Your task to perform on an android device: change your default location settings in chrome Image 0: 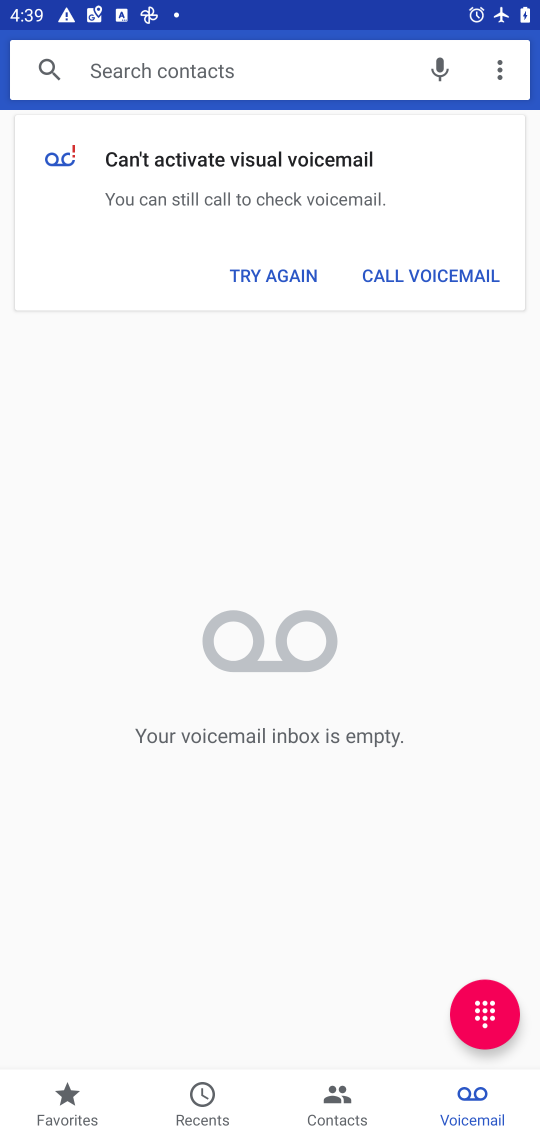
Step 0: press home button
Your task to perform on an android device: change your default location settings in chrome Image 1: 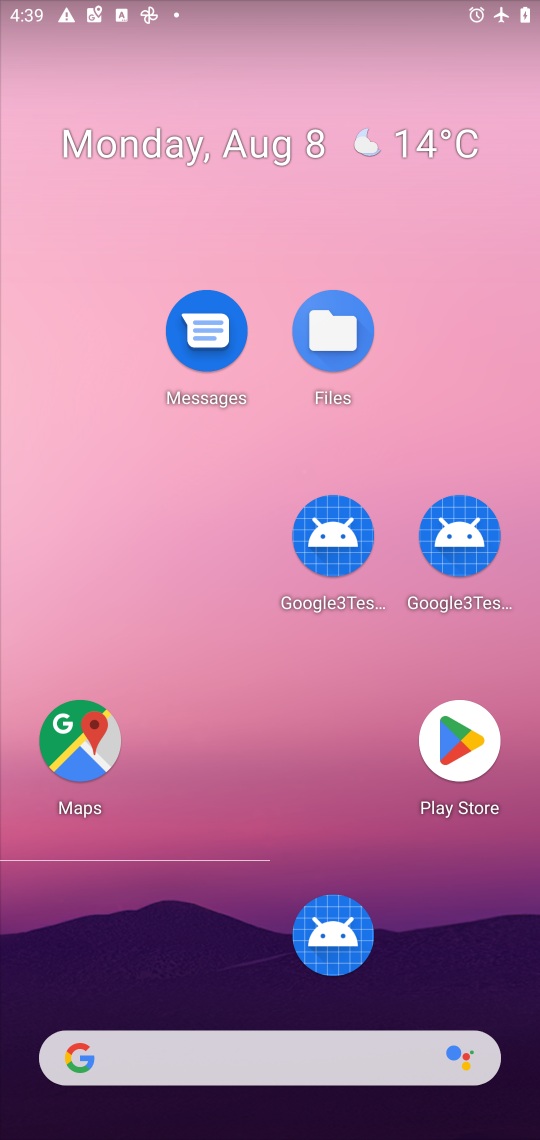
Step 1: drag from (351, 1047) to (289, 284)
Your task to perform on an android device: change your default location settings in chrome Image 2: 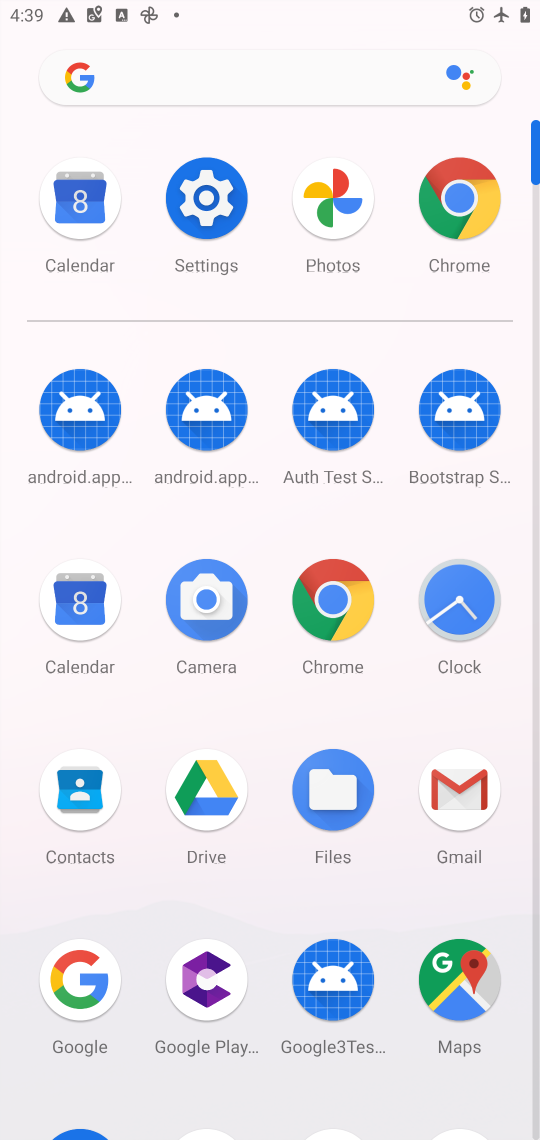
Step 2: click (313, 593)
Your task to perform on an android device: change your default location settings in chrome Image 3: 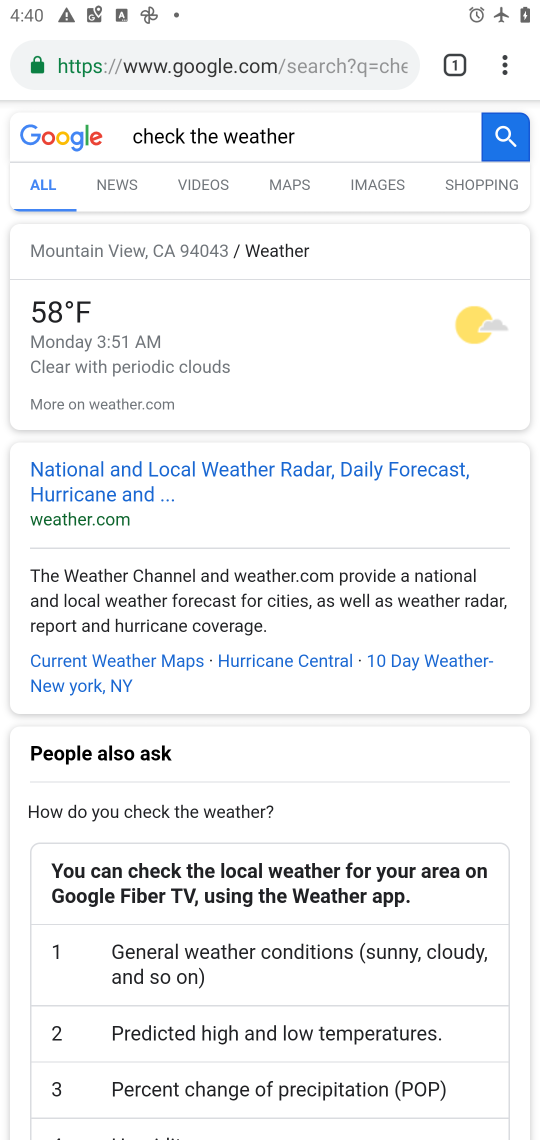
Step 3: click (502, 53)
Your task to perform on an android device: change your default location settings in chrome Image 4: 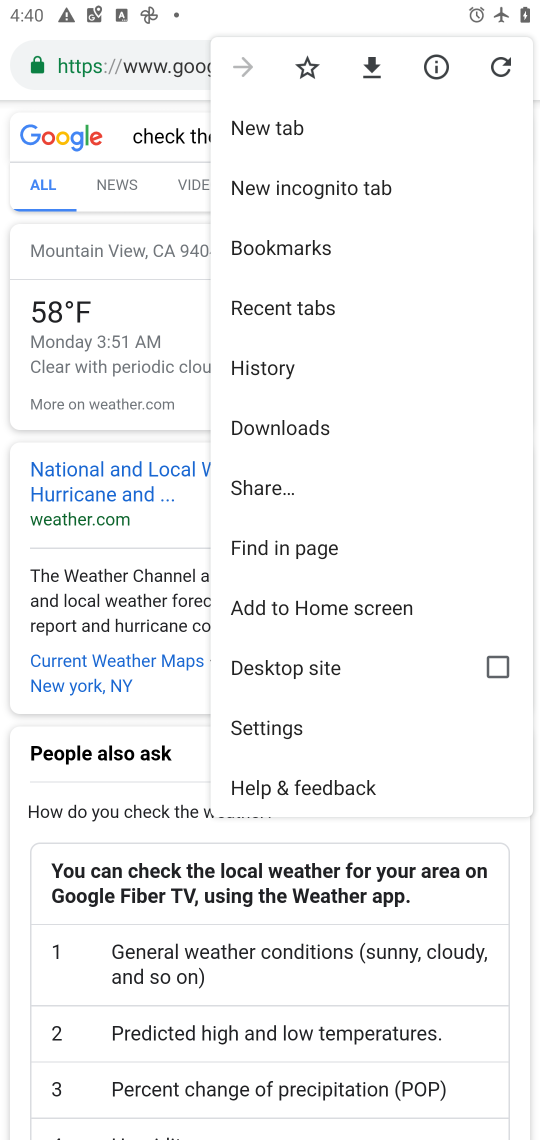
Step 4: click (317, 731)
Your task to perform on an android device: change your default location settings in chrome Image 5: 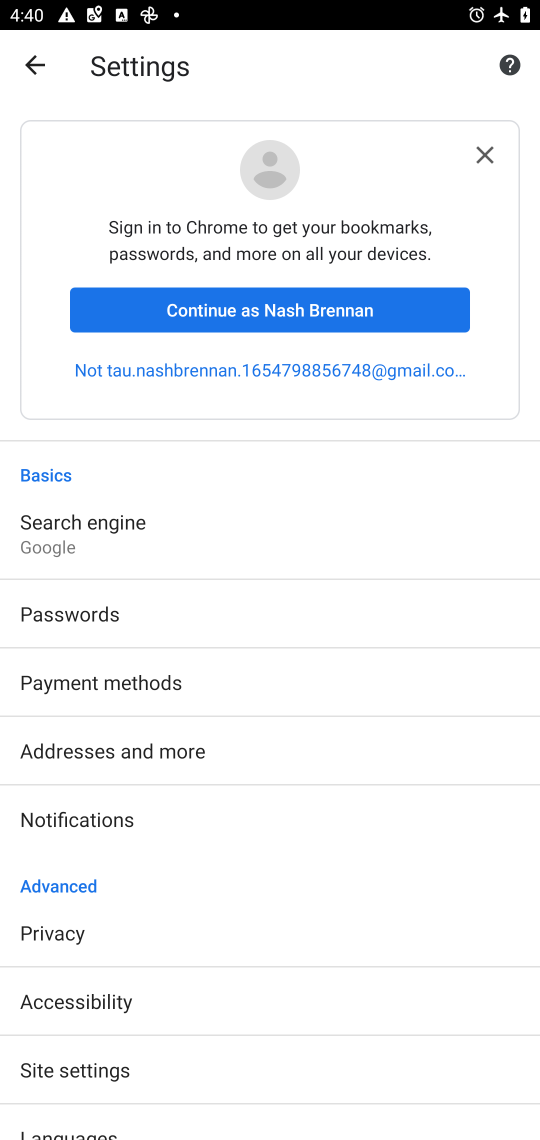
Step 5: click (142, 1064)
Your task to perform on an android device: change your default location settings in chrome Image 6: 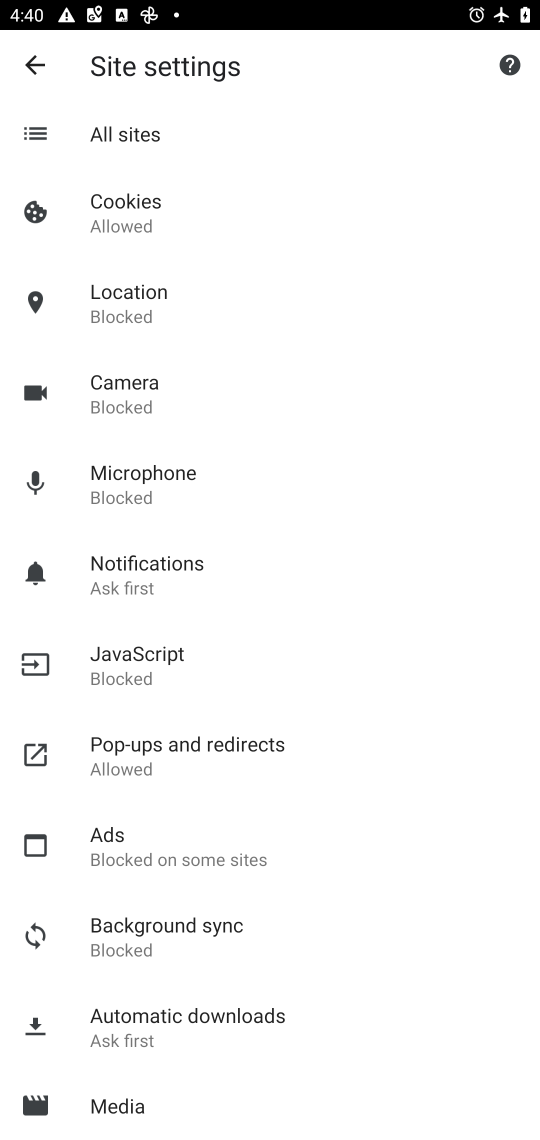
Step 6: click (169, 309)
Your task to perform on an android device: change your default location settings in chrome Image 7: 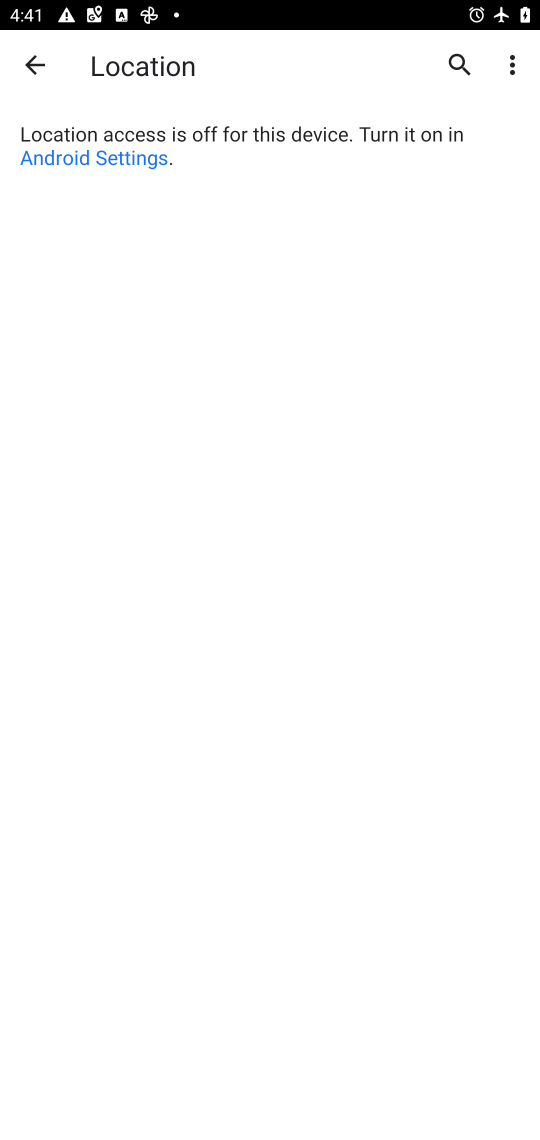
Step 7: task complete